Your task to perform on an android device: Open CNN.com Image 0: 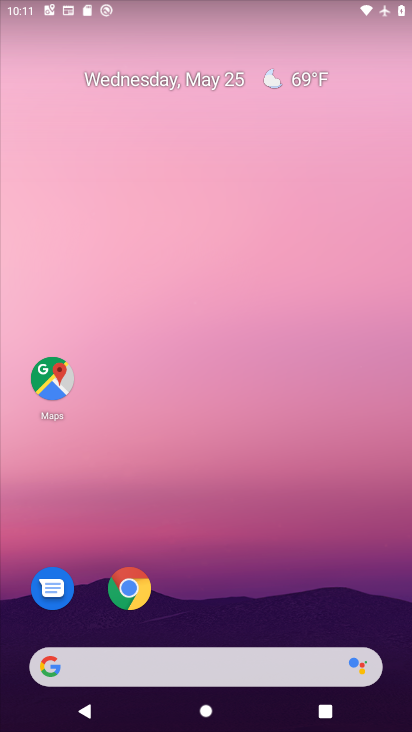
Step 0: drag from (389, 604) to (383, 256)
Your task to perform on an android device: Open CNN.com Image 1: 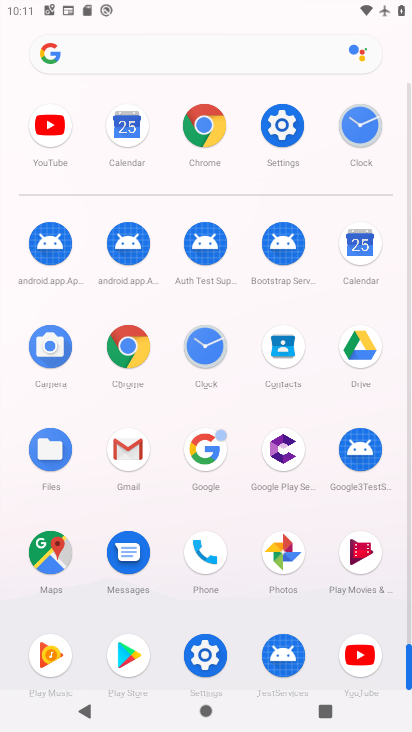
Step 1: click (127, 367)
Your task to perform on an android device: Open CNN.com Image 2: 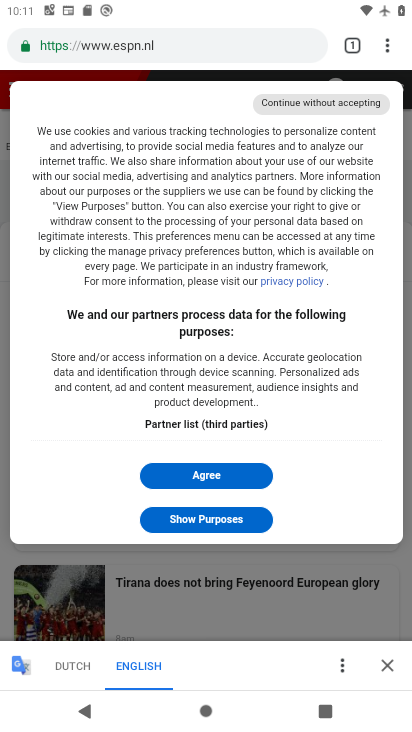
Step 2: click (195, 42)
Your task to perform on an android device: Open CNN.com Image 3: 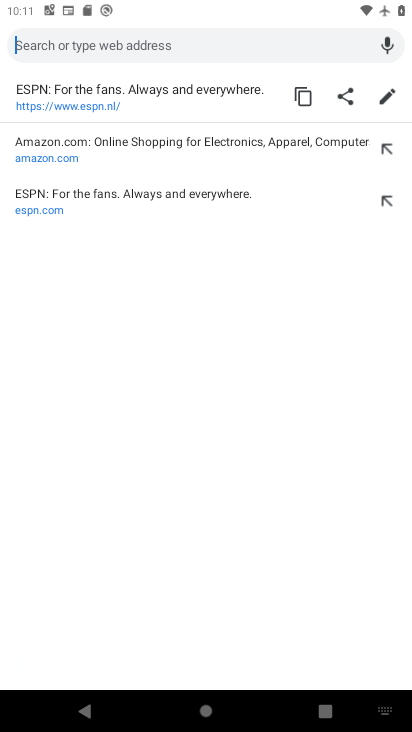
Step 3: type "cnn.com"
Your task to perform on an android device: Open CNN.com Image 4: 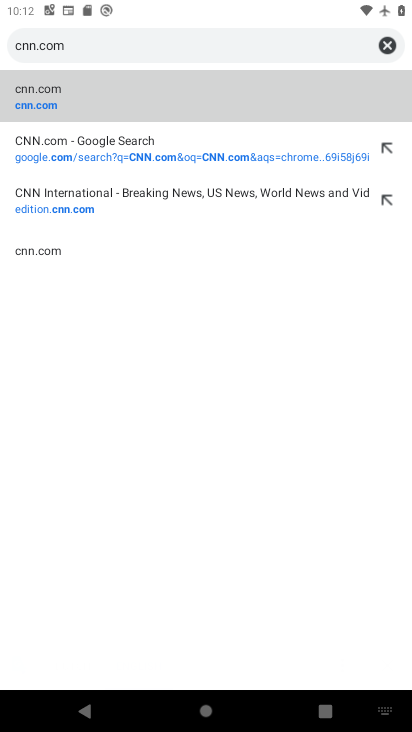
Step 4: click (64, 94)
Your task to perform on an android device: Open CNN.com Image 5: 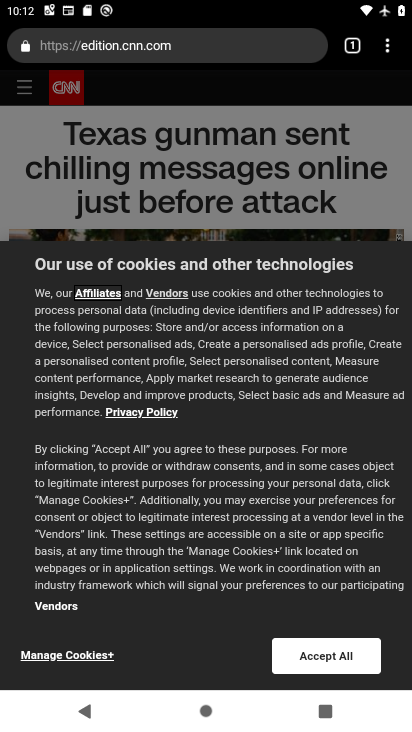
Step 5: task complete